Your task to perform on an android device: delete browsing data in the chrome app Image 0: 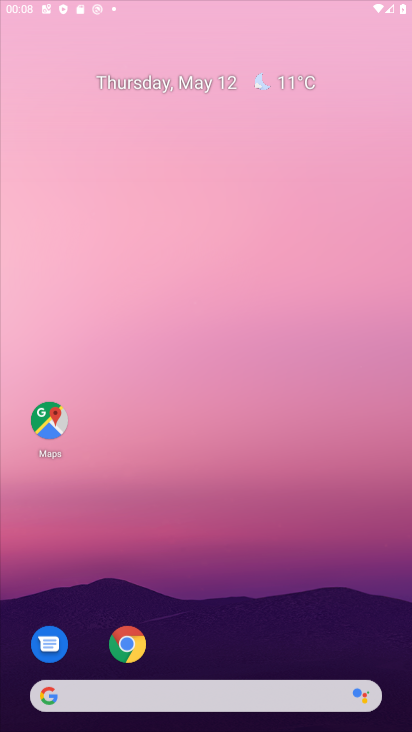
Step 0: drag from (220, 648) to (219, 35)
Your task to perform on an android device: delete browsing data in the chrome app Image 1: 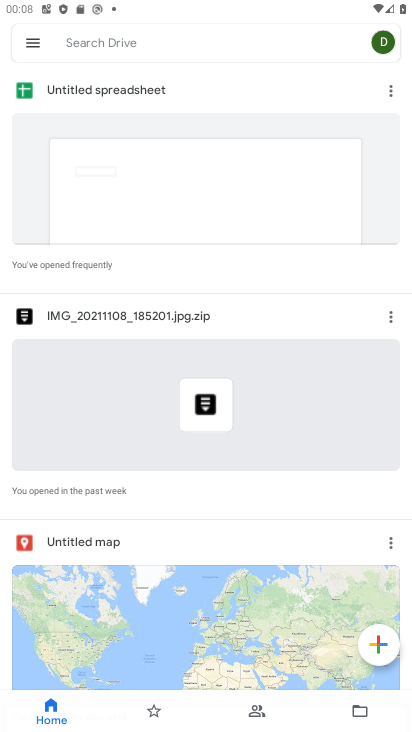
Step 1: press home button
Your task to perform on an android device: delete browsing data in the chrome app Image 2: 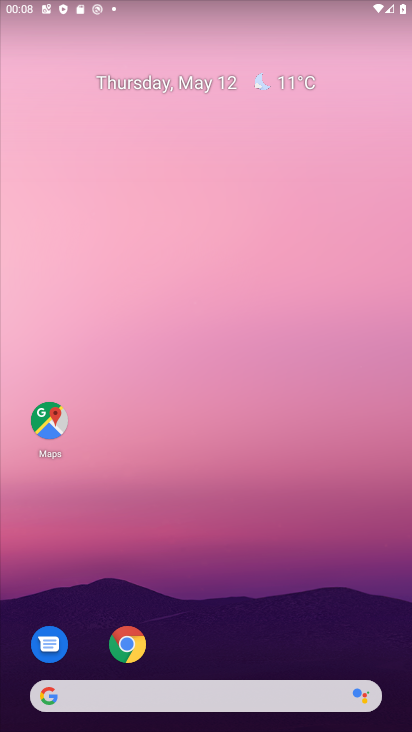
Step 2: click (125, 639)
Your task to perform on an android device: delete browsing data in the chrome app Image 3: 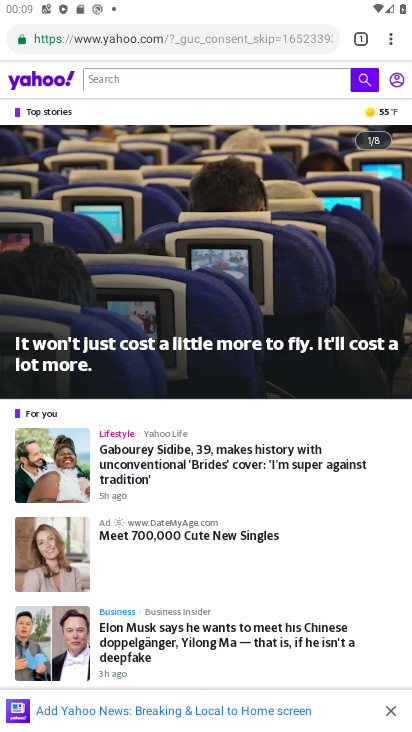
Step 3: click (391, 38)
Your task to perform on an android device: delete browsing data in the chrome app Image 4: 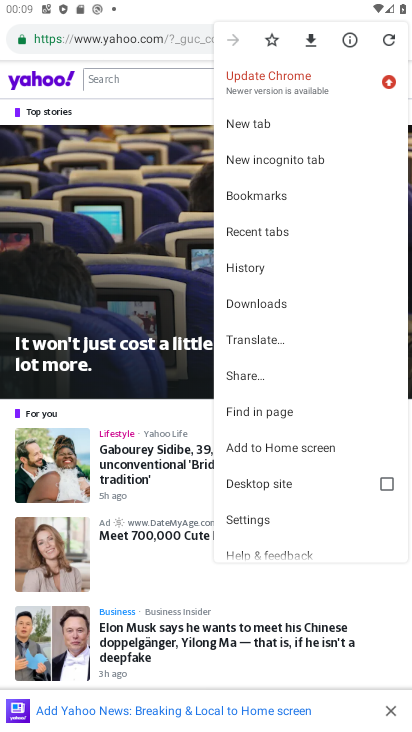
Step 4: click (267, 266)
Your task to perform on an android device: delete browsing data in the chrome app Image 5: 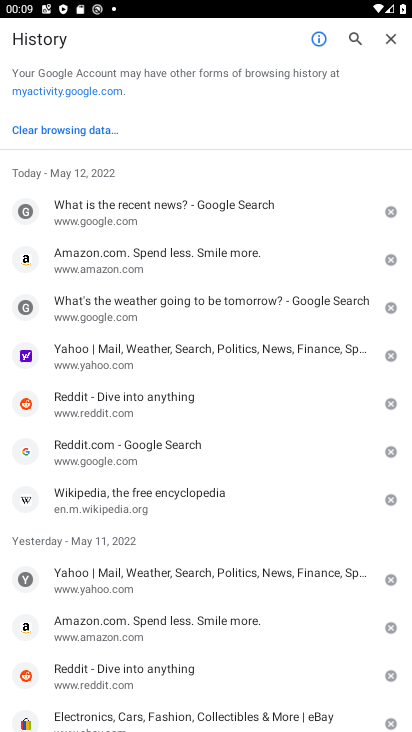
Step 5: click (91, 130)
Your task to perform on an android device: delete browsing data in the chrome app Image 6: 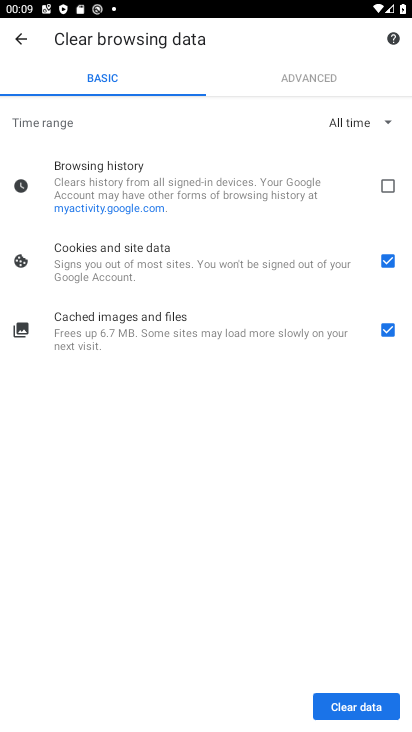
Step 6: click (388, 188)
Your task to perform on an android device: delete browsing data in the chrome app Image 7: 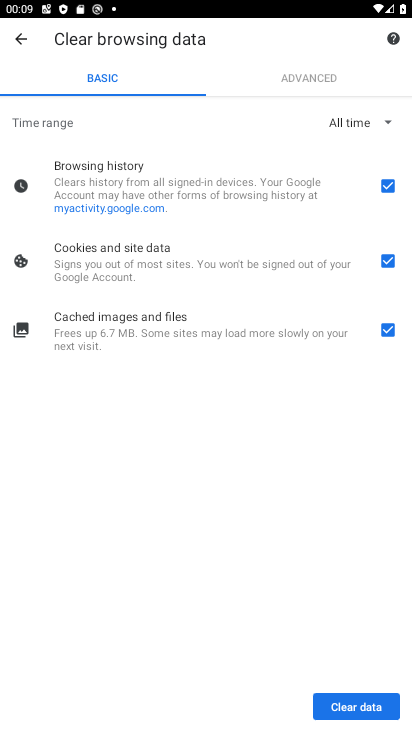
Step 7: click (358, 703)
Your task to perform on an android device: delete browsing data in the chrome app Image 8: 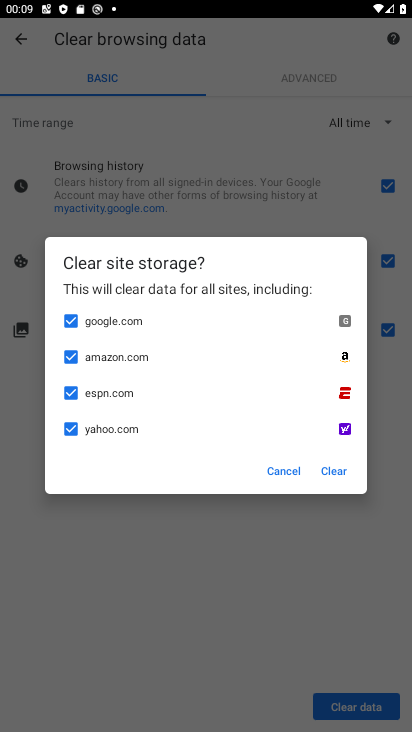
Step 8: click (335, 469)
Your task to perform on an android device: delete browsing data in the chrome app Image 9: 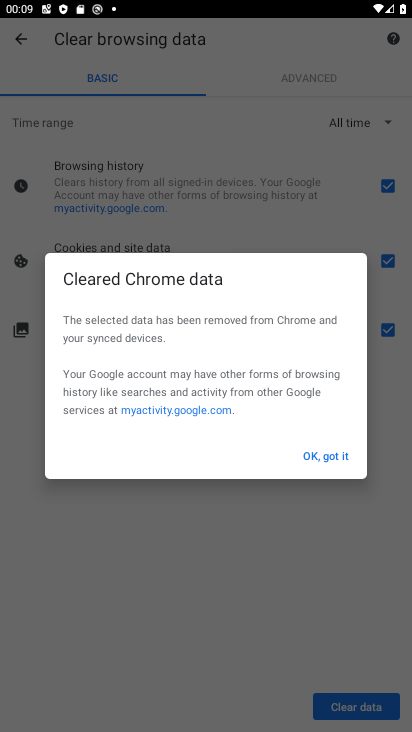
Step 9: click (327, 462)
Your task to perform on an android device: delete browsing data in the chrome app Image 10: 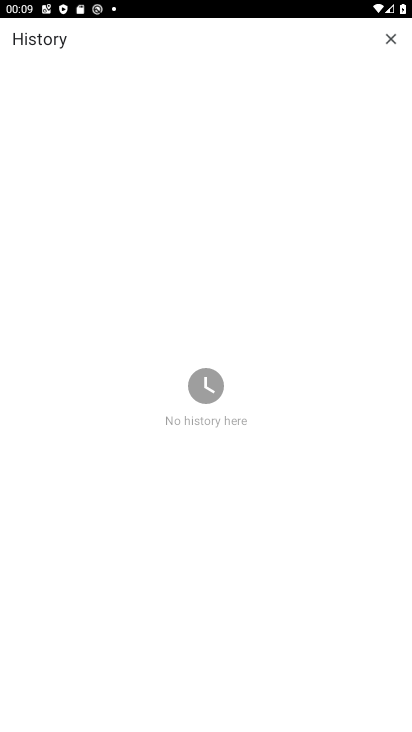
Step 10: task complete